Your task to perform on an android device: visit the assistant section in the google photos Image 0: 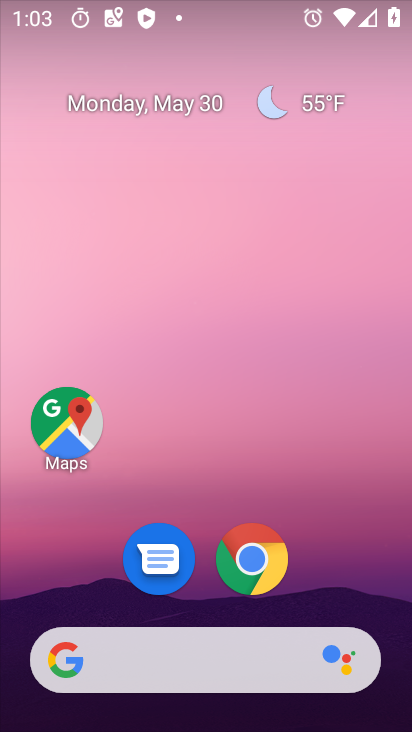
Step 0: drag from (166, 570) to (223, 82)
Your task to perform on an android device: visit the assistant section in the google photos Image 1: 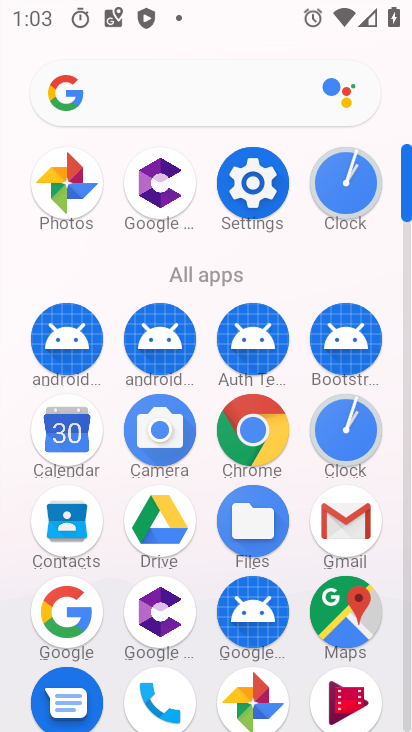
Step 1: click (245, 687)
Your task to perform on an android device: visit the assistant section in the google photos Image 2: 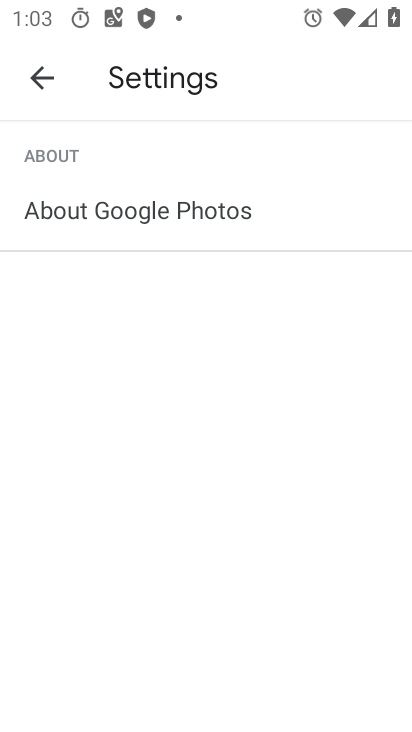
Step 2: click (37, 63)
Your task to perform on an android device: visit the assistant section in the google photos Image 3: 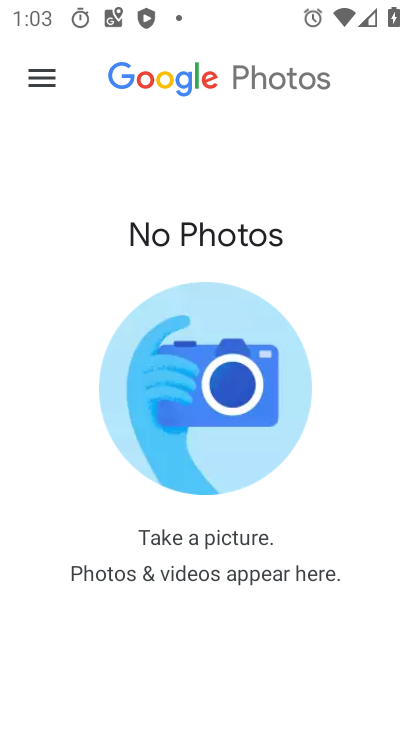
Step 3: task complete